Your task to perform on an android device: Open accessibility settings Image 0: 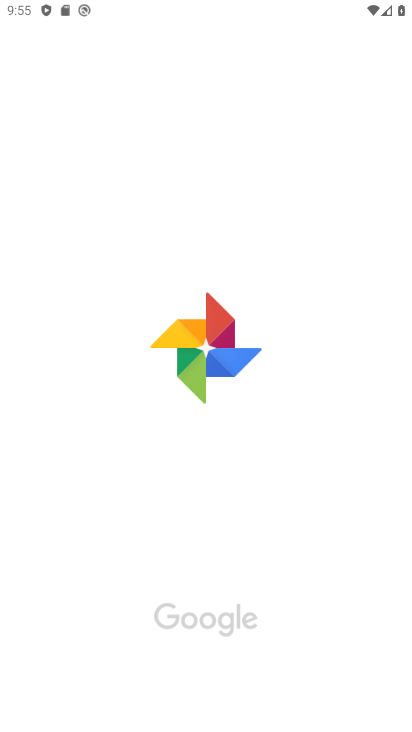
Step 0: drag from (272, 523) to (279, 299)
Your task to perform on an android device: Open accessibility settings Image 1: 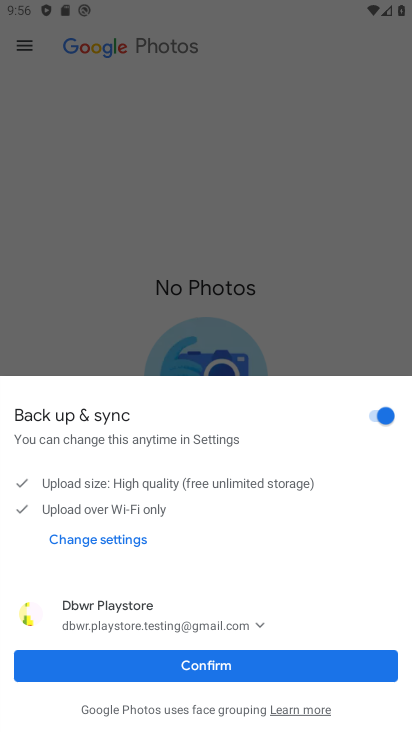
Step 1: press home button
Your task to perform on an android device: Open accessibility settings Image 2: 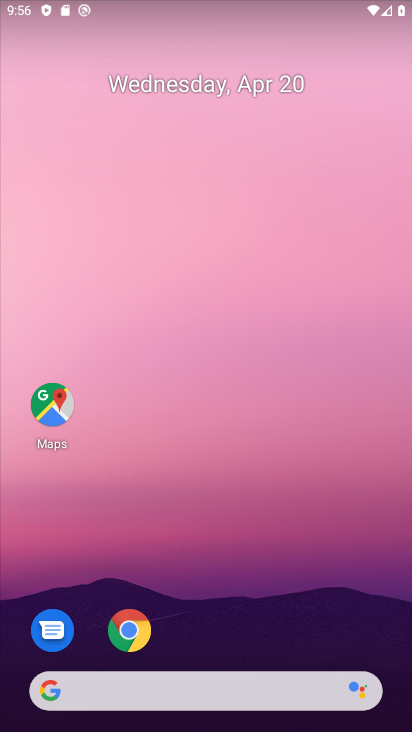
Step 2: drag from (242, 527) to (301, 48)
Your task to perform on an android device: Open accessibility settings Image 3: 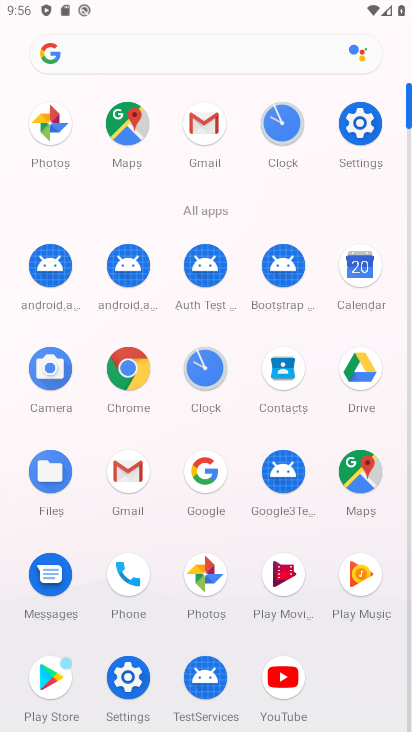
Step 3: click (354, 119)
Your task to perform on an android device: Open accessibility settings Image 4: 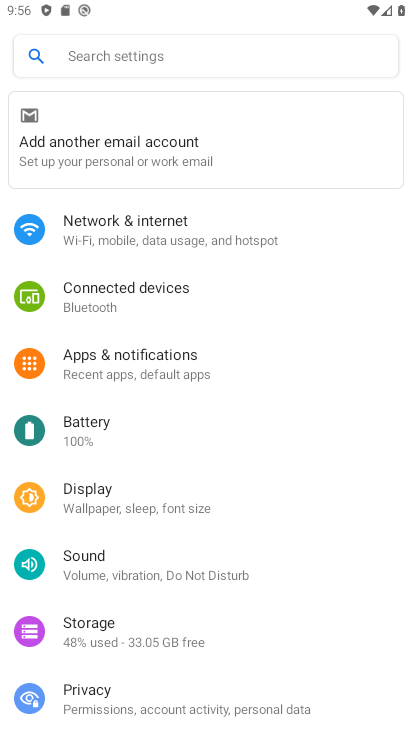
Step 4: drag from (183, 523) to (229, 279)
Your task to perform on an android device: Open accessibility settings Image 5: 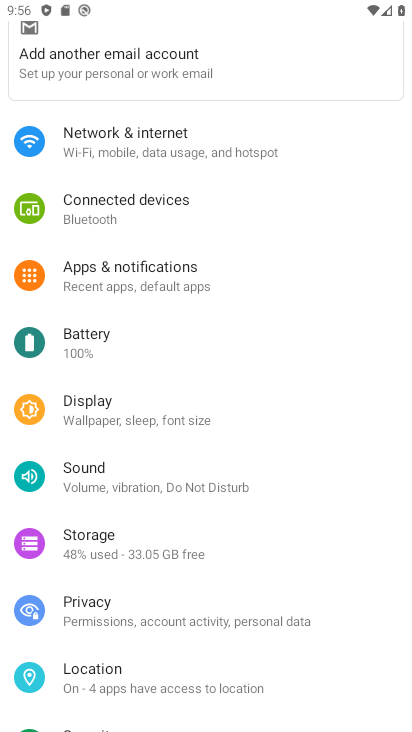
Step 5: drag from (198, 508) to (236, 243)
Your task to perform on an android device: Open accessibility settings Image 6: 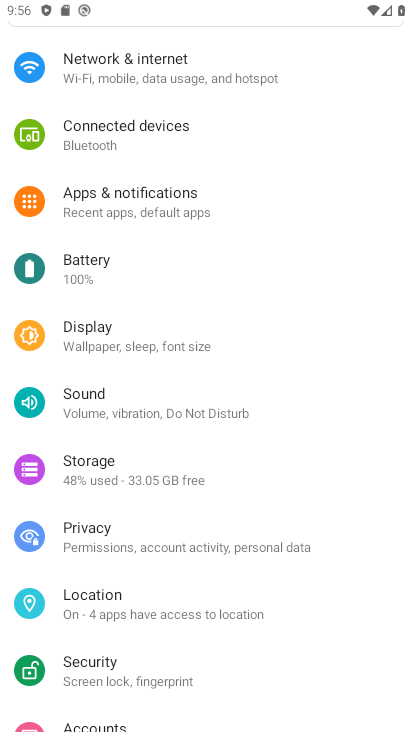
Step 6: drag from (203, 591) to (264, 289)
Your task to perform on an android device: Open accessibility settings Image 7: 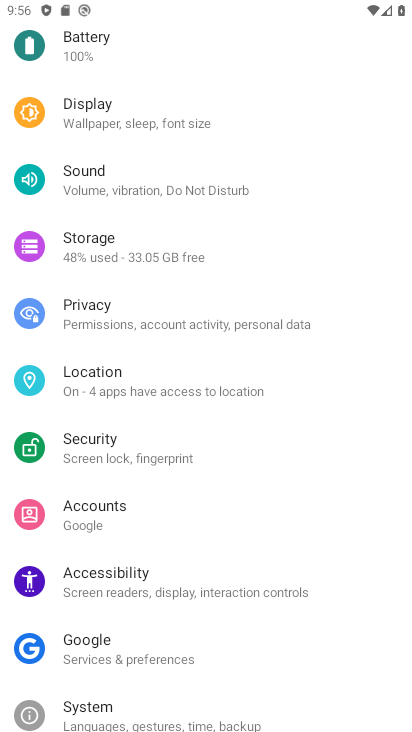
Step 7: click (156, 585)
Your task to perform on an android device: Open accessibility settings Image 8: 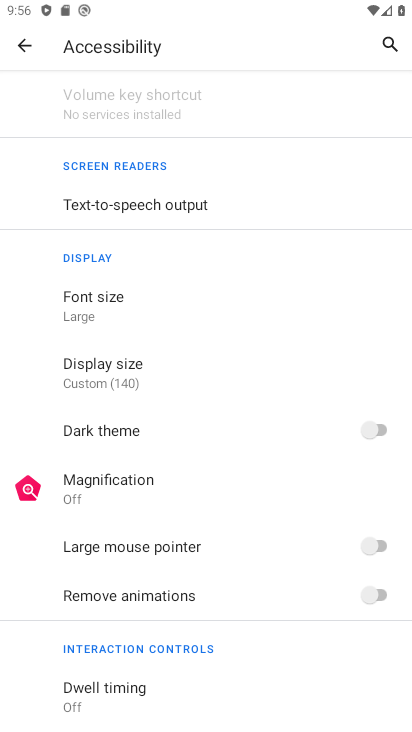
Step 8: task complete